Your task to perform on an android device: all mails in gmail Image 0: 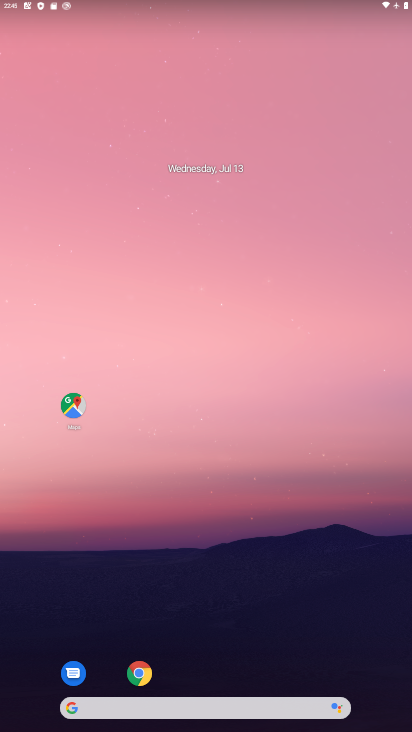
Step 0: drag from (232, 652) to (153, 157)
Your task to perform on an android device: all mails in gmail Image 1: 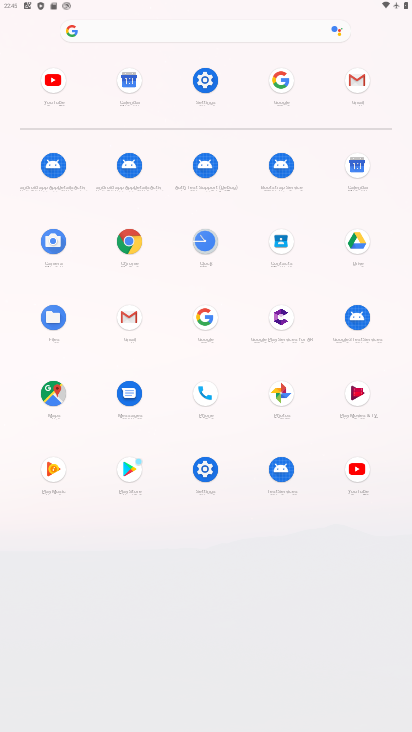
Step 1: click (141, 316)
Your task to perform on an android device: all mails in gmail Image 2: 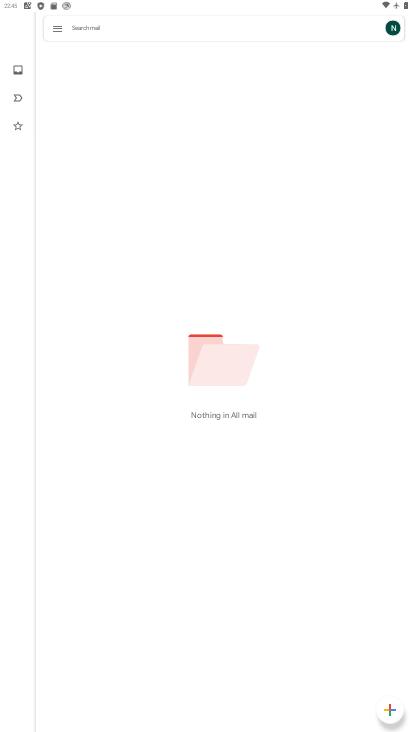
Step 2: click (52, 26)
Your task to perform on an android device: all mails in gmail Image 3: 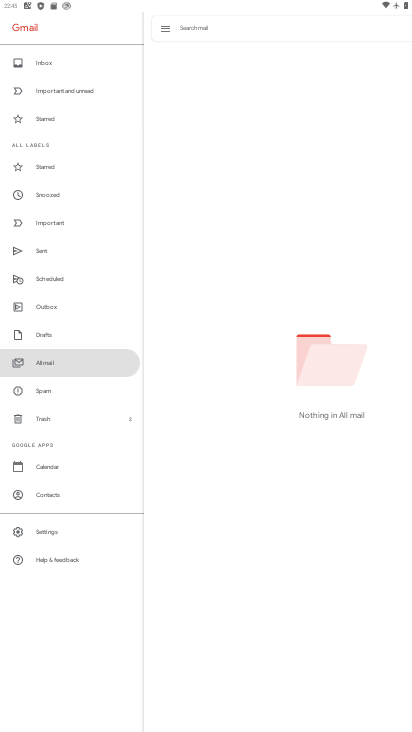
Step 3: click (44, 359)
Your task to perform on an android device: all mails in gmail Image 4: 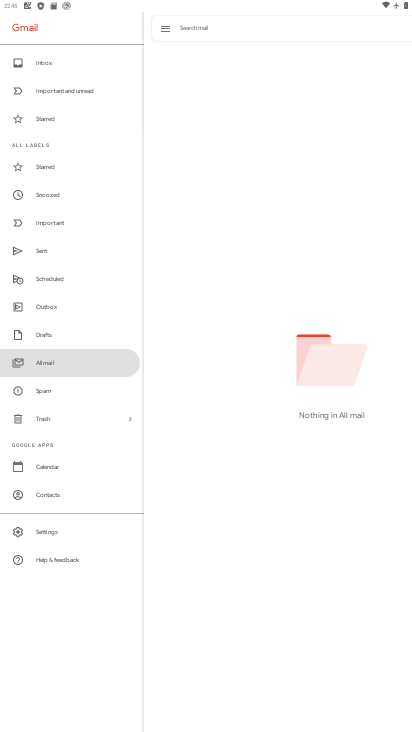
Step 4: task complete